Your task to perform on an android device: Go to Yahoo.com Image 0: 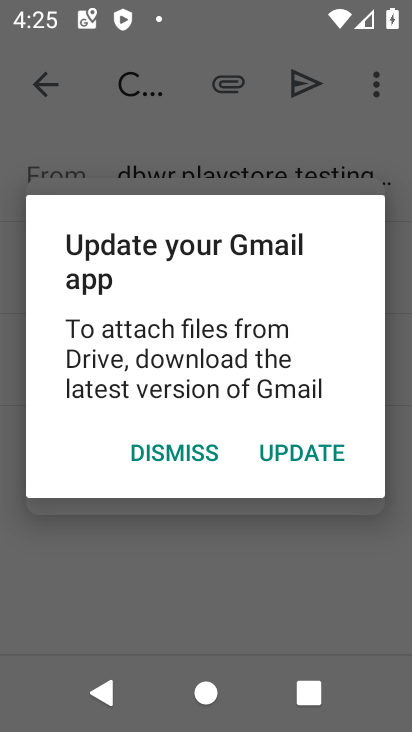
Step 0: press home button
Your task to perform on an android device: Go to Yahoo.com Image 1: 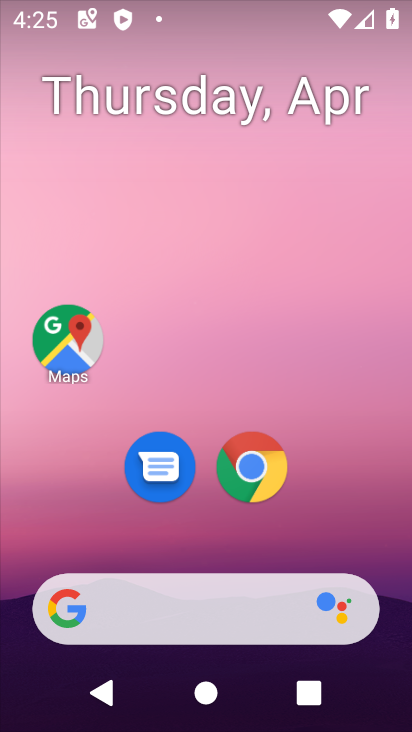
Step 1: click (247, 457)
Your task to perform on an android device: Go to Yahoo.com Image 2: 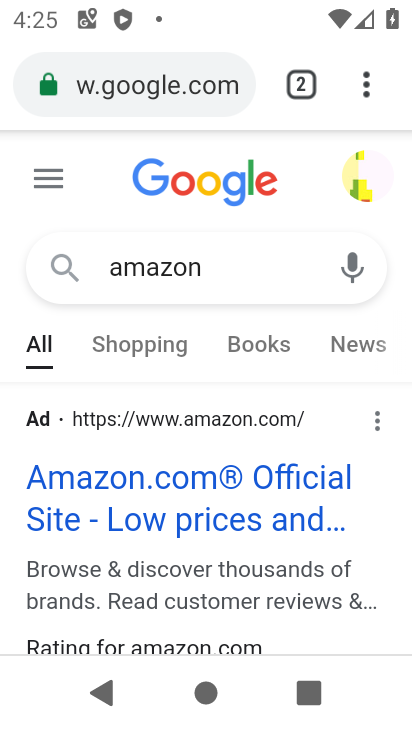
Step 2: click (197, 91)
Your task to perform on an android device: Go to Yahoo.com Image 3: 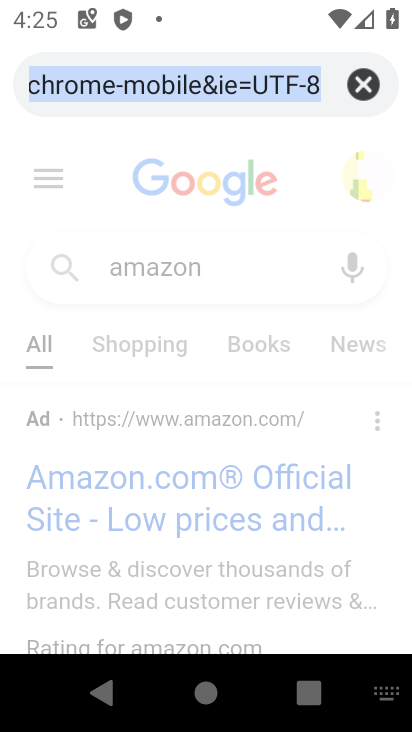
Step 3: type "yahoo.com"
Your task to perform on an android device: Go to Yahoo.com Image 4: 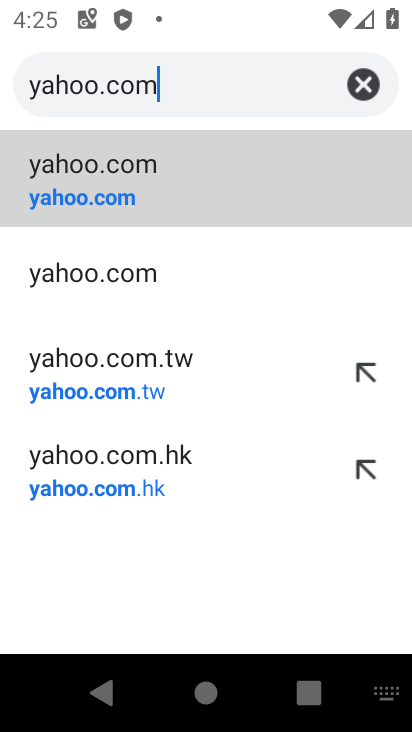
Step 4: click (111, 196)
Your task to perform on an android device: Go to Yahoo.com Image 5: 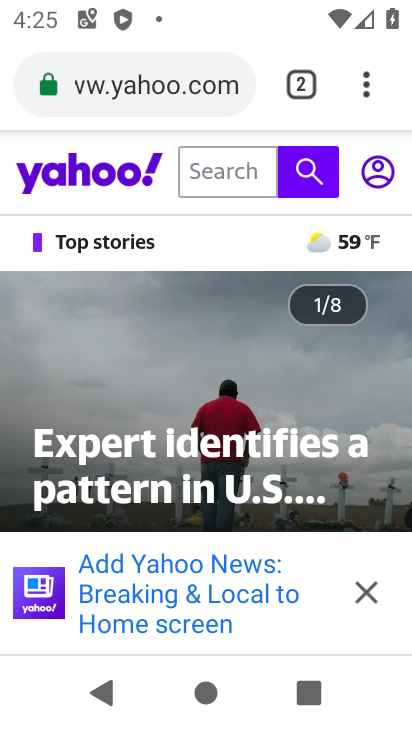
Step 5: task complete